Your task to perform on an android device: check android version Image 0: 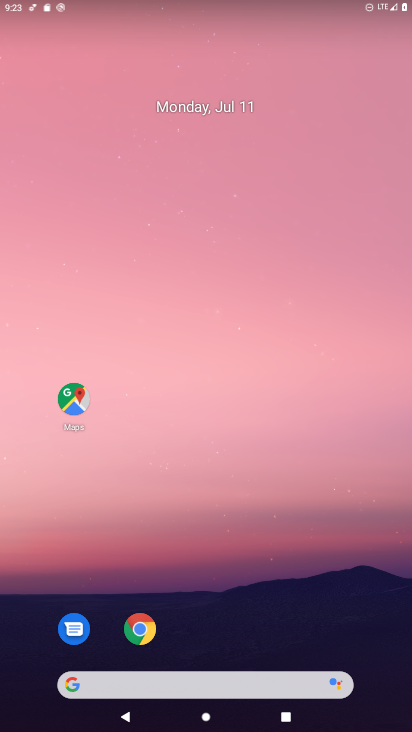
Step 0: drag from (260, 7) to (316, 556)
Your task to perform on an android device: check android version Image 1: 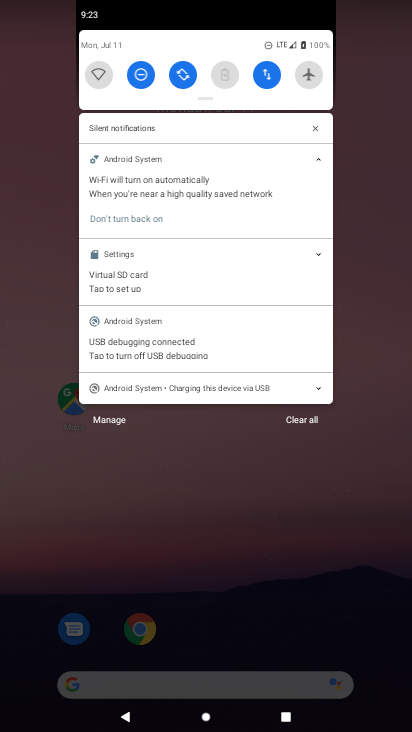
Step 1: drag from (189, 39) to (232, 555)
Your task to perform on an android device: check android version Image 2: 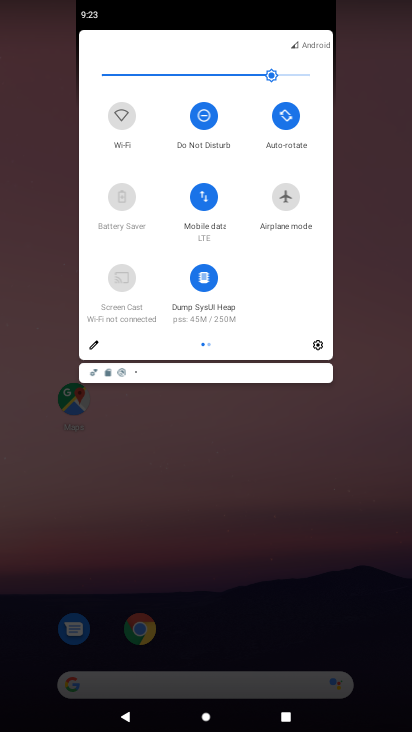
Step 2: click (317, 349)
Your task to perform on an android device: check android version Image 3: 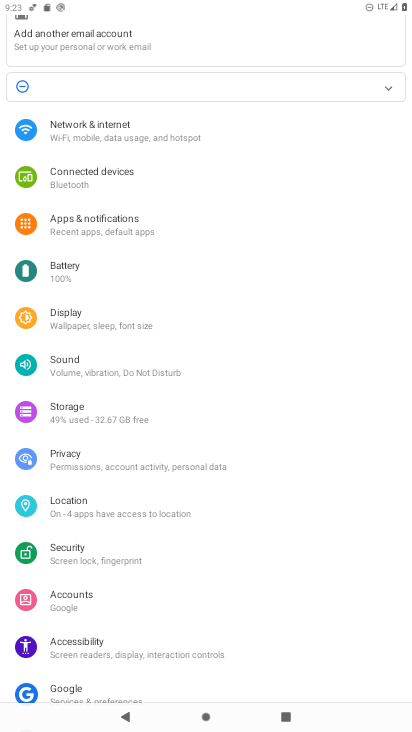
Step 3: drag from (125, 643) to (249, 110)
Your task to perform on an android device: check android version Image 4: 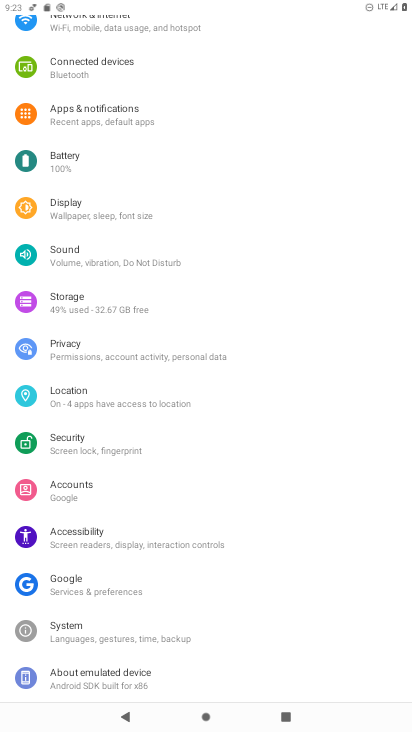
Step 4: click (77, 669)
Your task to perform on an android device: check android version Image 5: 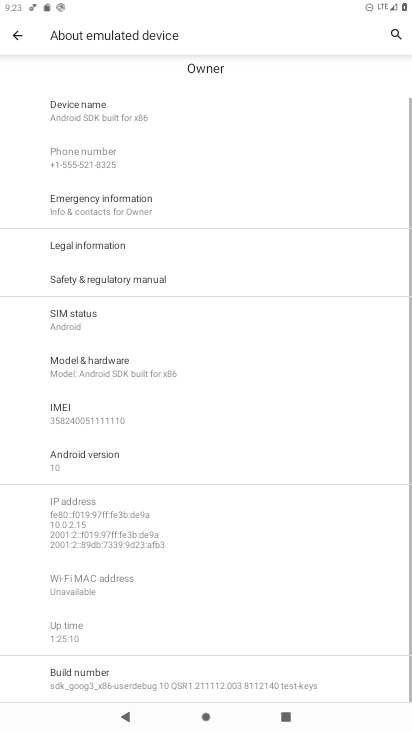
Step 5: click (145, 453)
Your task to perform on an android device: check android version Image 6: 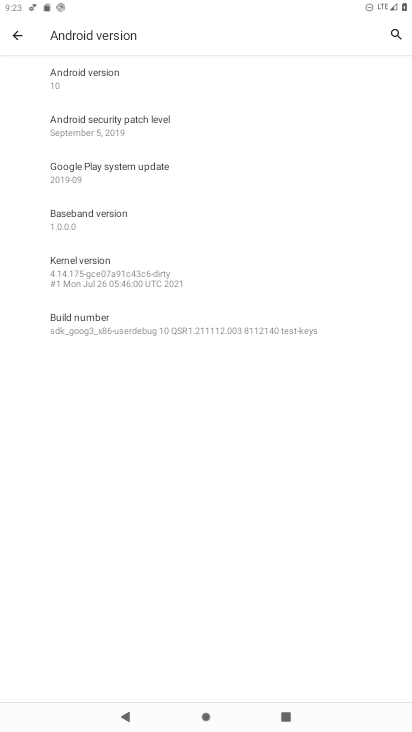
Step 6: task complete